Your task to perform on an android device: turn off improve location accuracy Image 0: 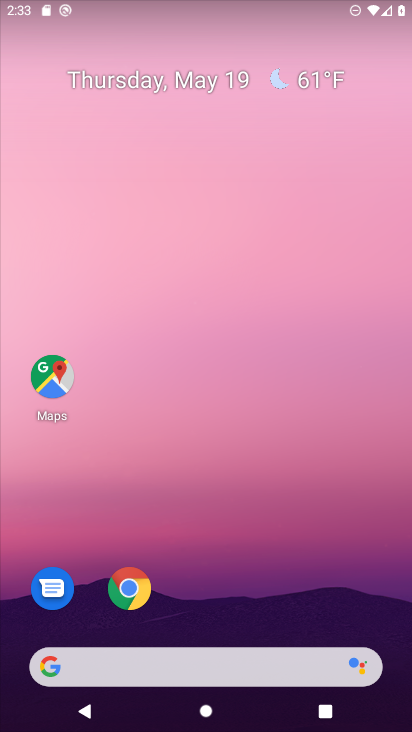
Step 0: drag from (302, 644) to (286, 0)
Your task to perform on an android device: turn off improve location accuracy Image 1: 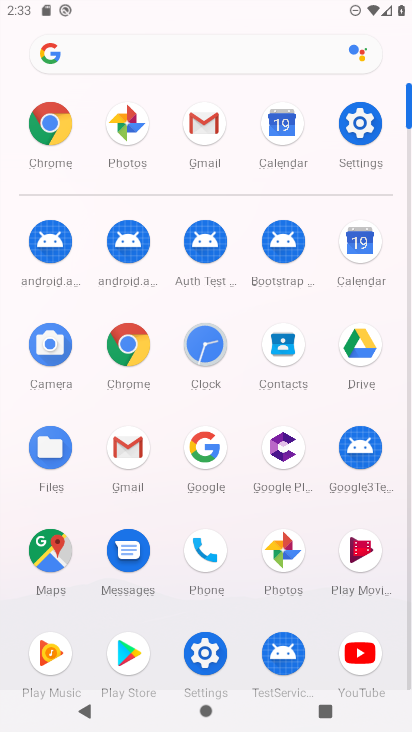
Step 1: click (347, 121)
Your task to perform on an android device: turn off improve location accuracy Image 2: 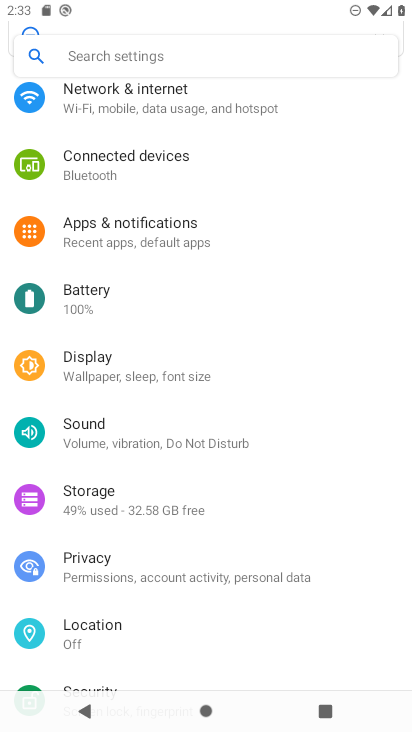
Step 2: click (96, 640)
Your task to perform on an android device: turn off improve location accuracy Image 3: 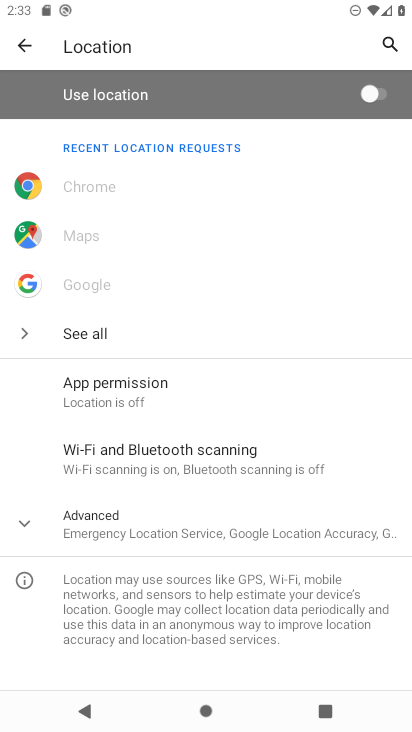
Step 3: click (23, 530)
Your task to perform on an android device: turn off improve location accuracy Image 4: 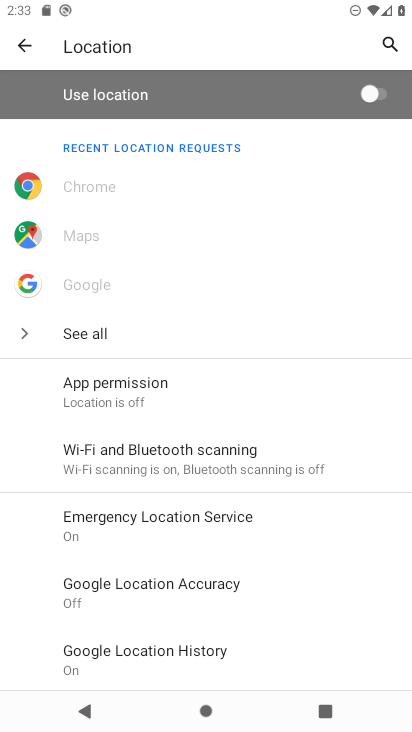
Step 4: click (89, 587)
Your task to perform on an android device: turn off improve location accuracy Image 5: 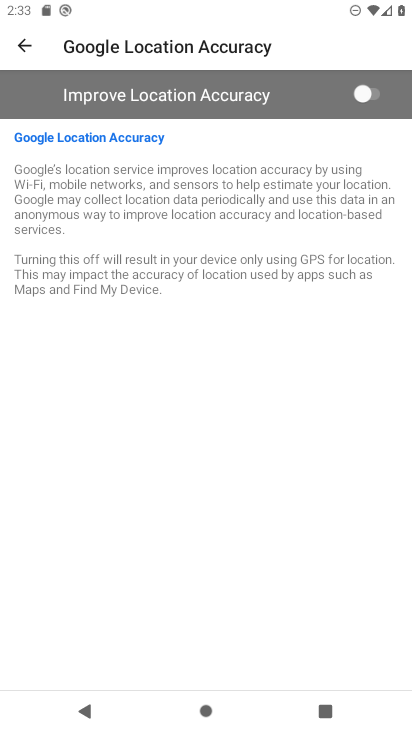
Step 5: task complete